Your task to perform on an android device: change the clock display to digital Image 0: 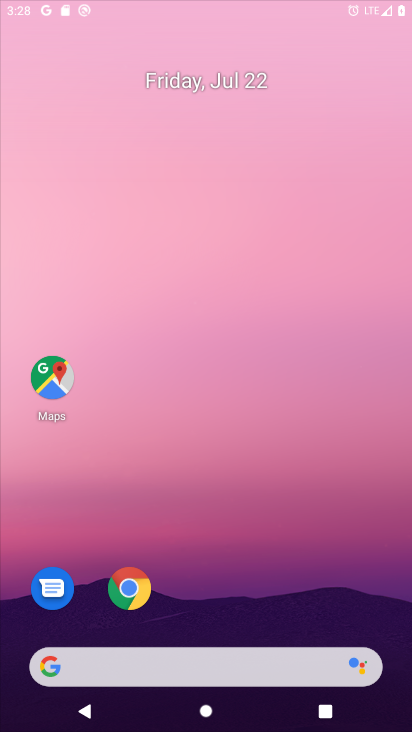
Step 0: drag from (310, 259) to (296, 17)
Your task to perform on an android device: change the clock display to digital Image 1: 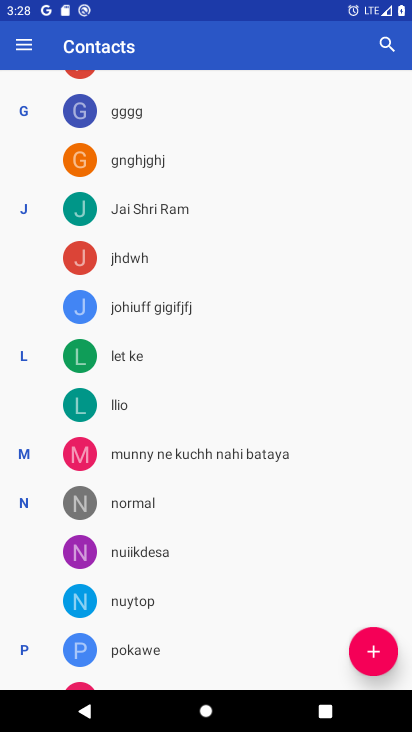
Step 1: press home button
Your task to perform on an android device: change the clock display to digital Image 2: 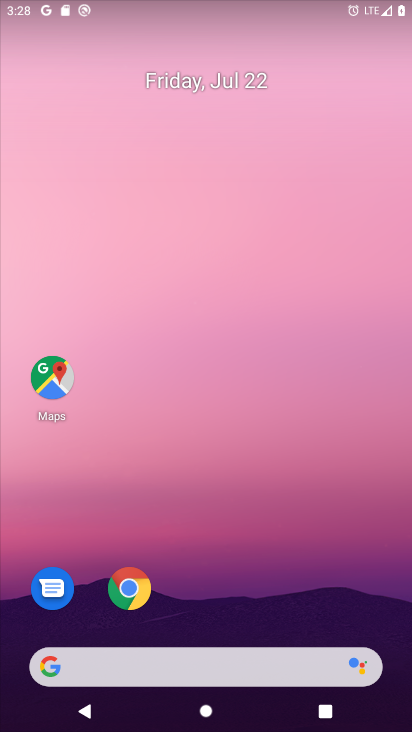
Step 2: drag from (298, 615) to (304, 9)
Your task to perform on an android device: change the clock display to digital Image 3: 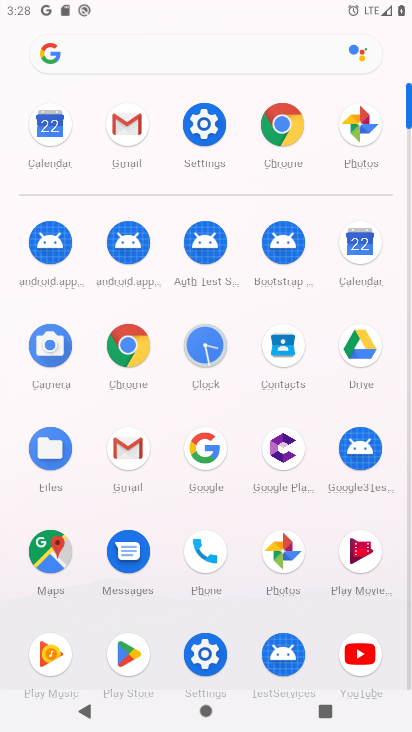
Step 3: click (189, 343)
Your task to perform on an android device: change the clock display to digital Image 4: 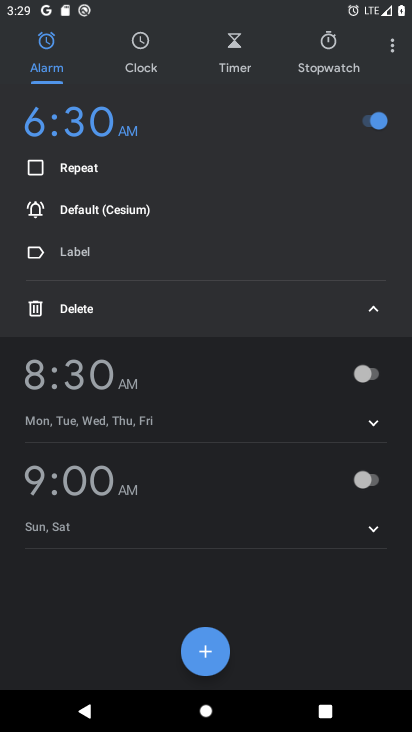
Step 4: click (390, 46)
Your task to perform on an android device: change the clock display to digital Image 5: 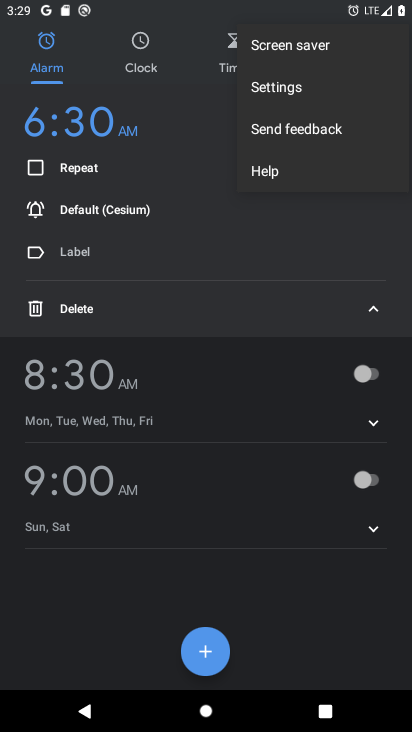
Step 5: click (283, 84)
Your task to perform on an android device: change the clock display to digital Image 6: 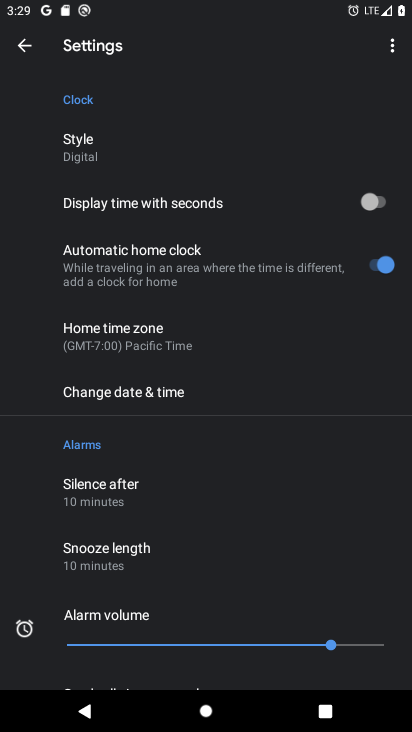
Step 6: task complete